Your task to perform on an android device: turn on priority inbox in the gmail app Image 0: 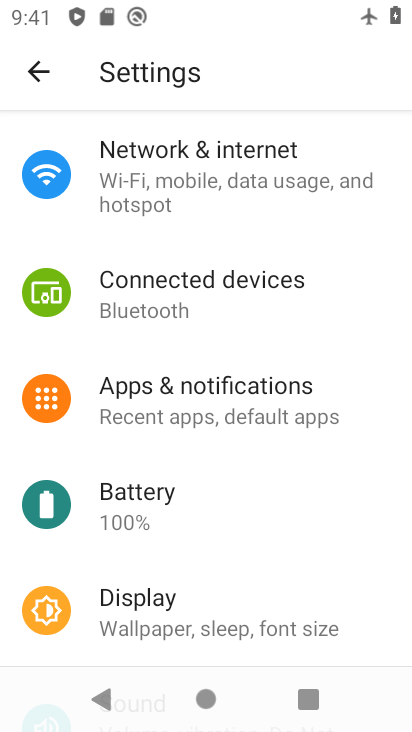
Step 0: drag from (201, 621) to (198, 243)
Your task to perform on an android device: turn on priority inbox in the gmail app Image 1: 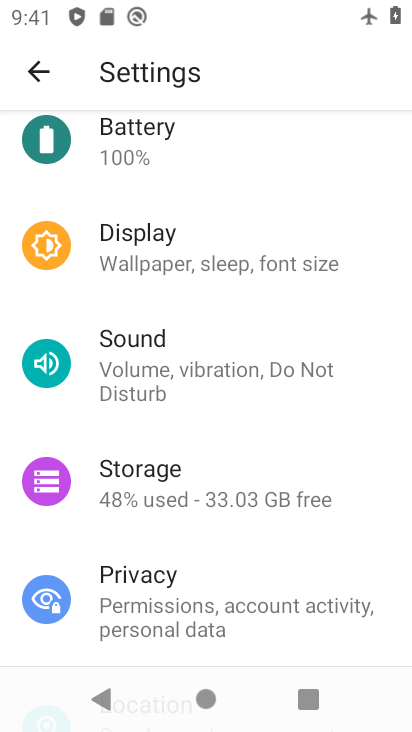
Step 1: press home button
Your task to perform on an android device: turn on priority inbox in the gmail app Image 2: 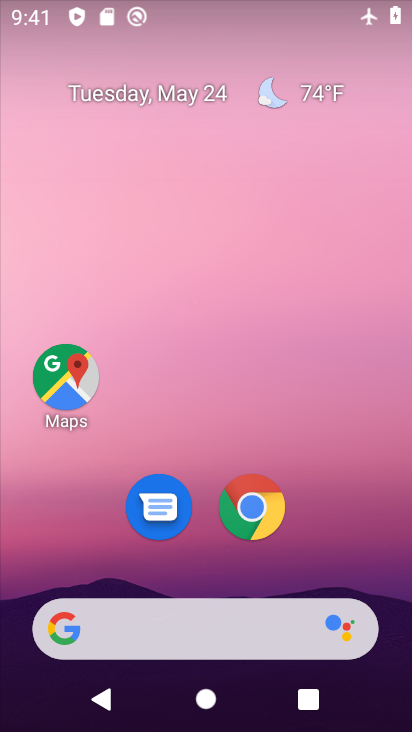
Step 2: drag from (221, 714) to (219, 168)
Your task to perform on an android device: turn on priority inbox in the gmail app Image 3: 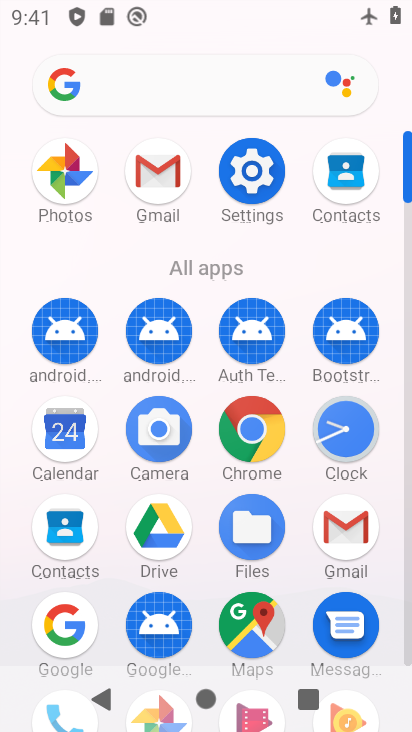
Step 3: click (357, 535)
Your task to perform on an android device: turn on priority inbox in the gmail app Image 4: 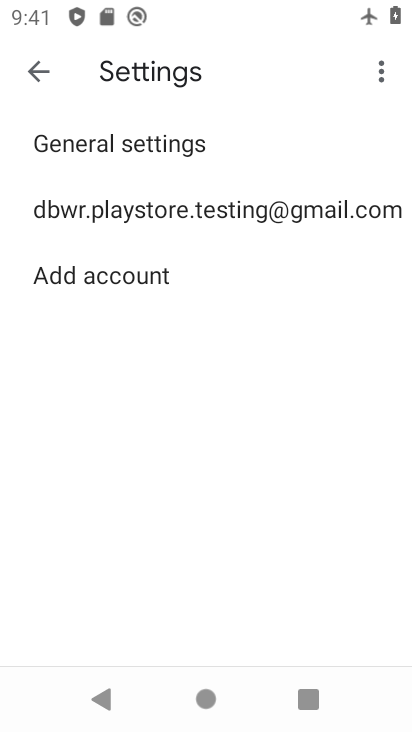
Step 4: click (206, 214)
Your task to perform on an android device: turn on priority inbox in the gmail app Image 5: 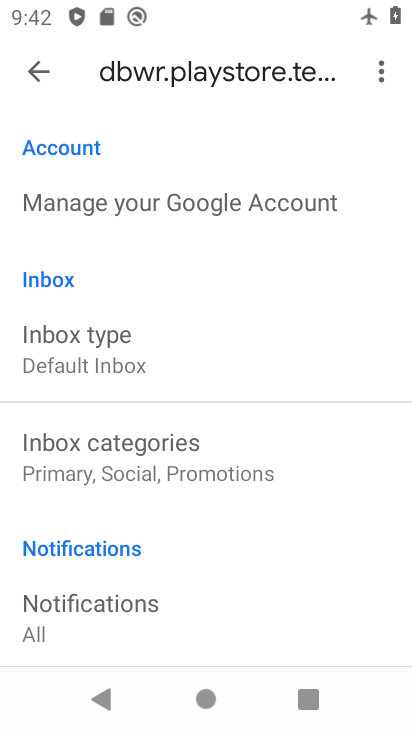
Step 5: click (86, 362)
Your task to perform on an android device: turn on priority inbox in the gmail app Image 6: 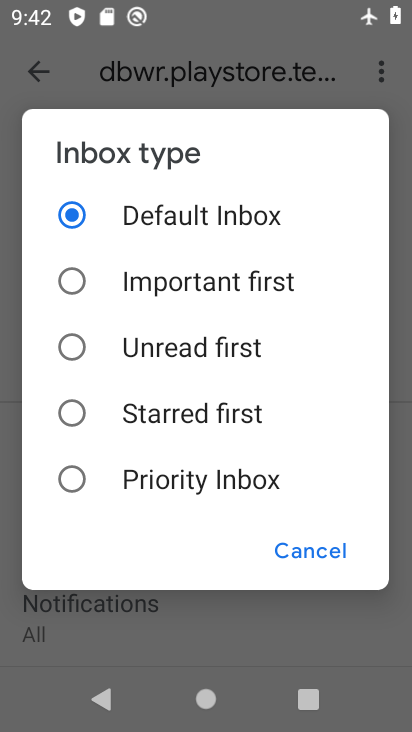
Step 6: click (78, 474)
Your task to perform on an android device: turn on priority inbox in the gmail app Image 7: 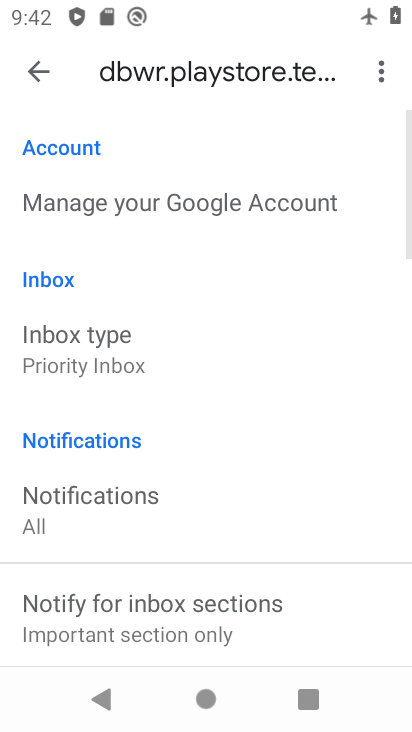
Step 7: task complete